Your task to perform on an android device: Open settings Image 0: 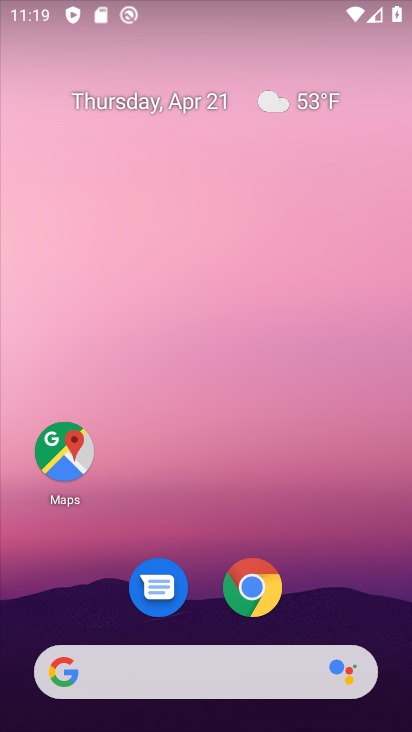
Step 0: drag from (226, 582) to (245, 54)
Your task to perform on an android device: Open settings Image 1: 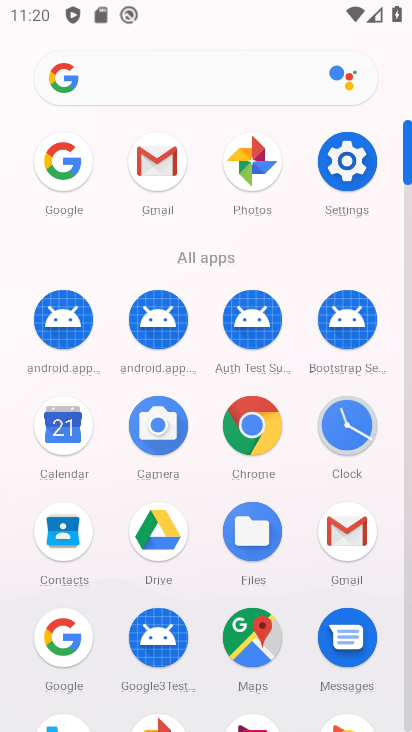
Step 1: click (335, 167)
Your task to perform on an android device: Open settings Image 2: 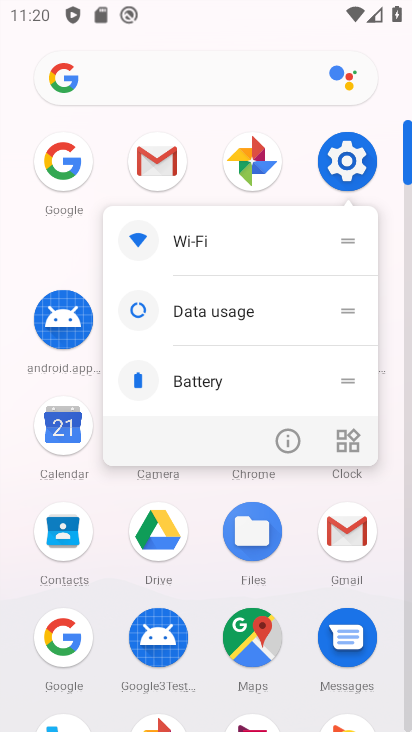
Step 2: click (346, 163)
Your task to perform on an android device: Open settings Image 3: 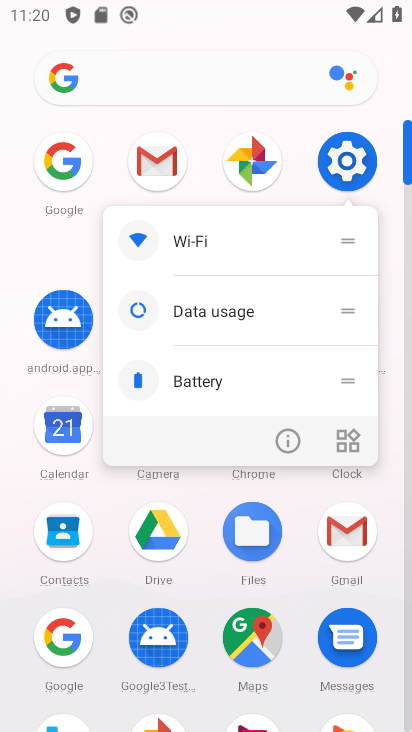
Step 3: click (351, 177)
Your task to perform on an android device: Open settings Image 4: 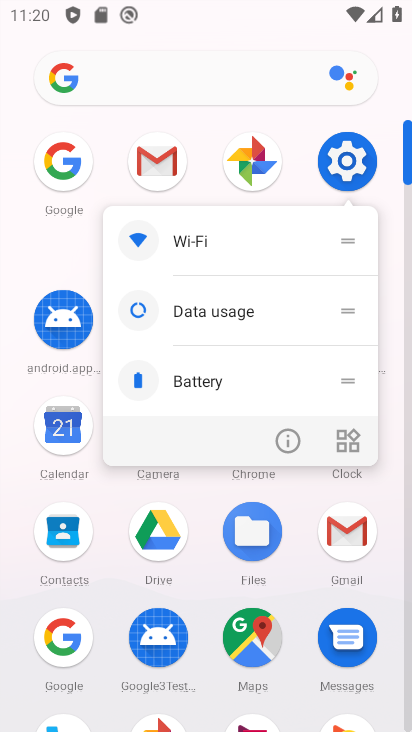
Step 4: click (363, 153)
Your task to perform on an android device: Open settings Image 5: 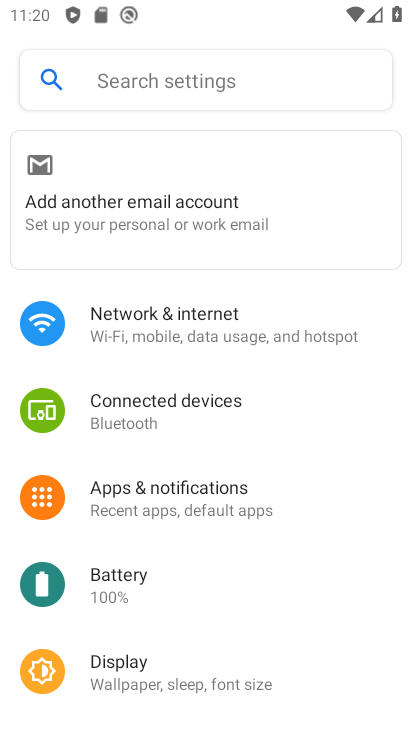
Step 5: task complete